Your task to perform on an android device: Open Android settings Image 0: 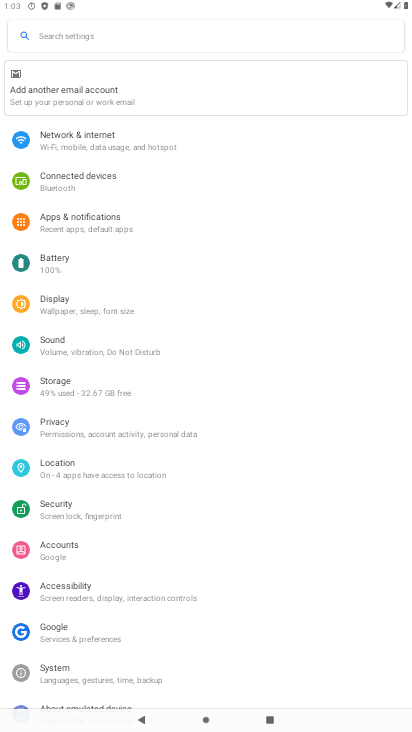
Step 0: press home button
Your task to perform on an android device: Open Android settings Image 1: 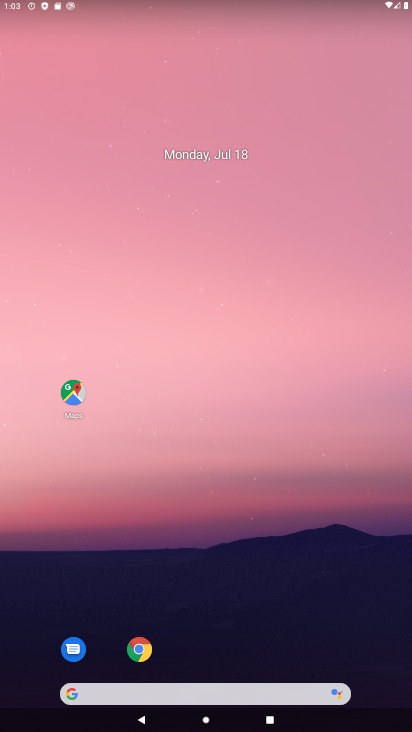
Step 1: drag from (207, 671) to (217, 197)
Your task to perform on an android device: Open Android settings Image 2: 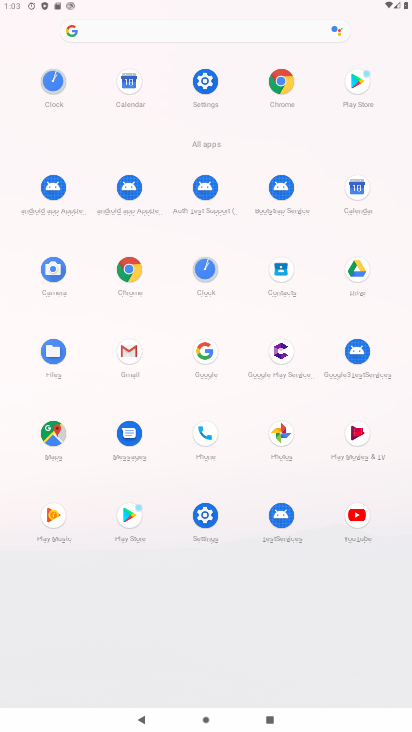
Step 2: click (204, 92)
Your task to perform on an android device: Open Android settings Image 3: 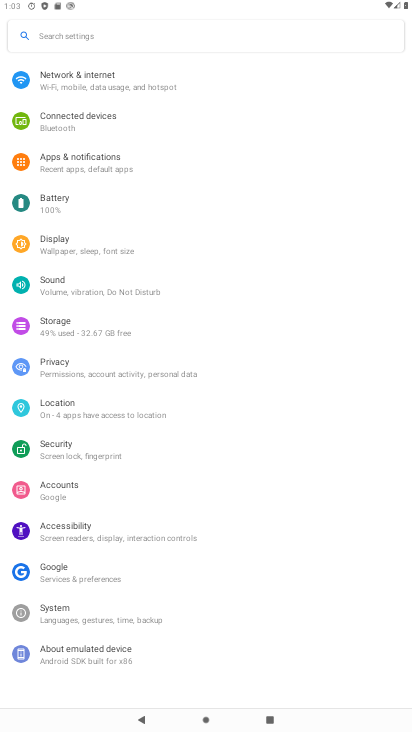
Step 3: task complete